Your task to perform on an android device: open the mobile data screen to see how much data has been used Image 0: 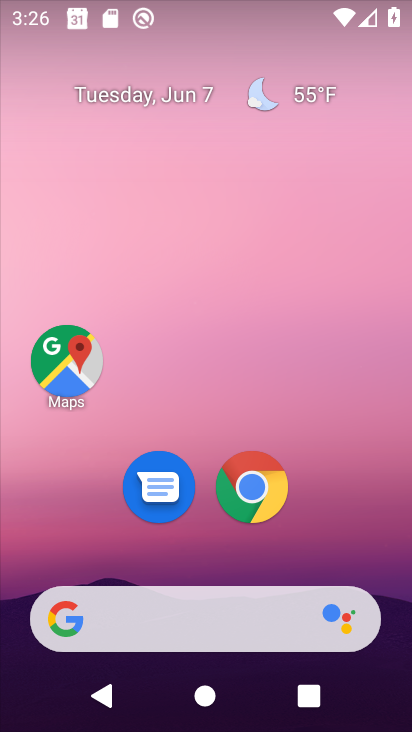
Step 0: drag from (289, 542) to (262, 91)
Your task to perform on an android device: open the mobile data screen to see how much data has been used Image 1: 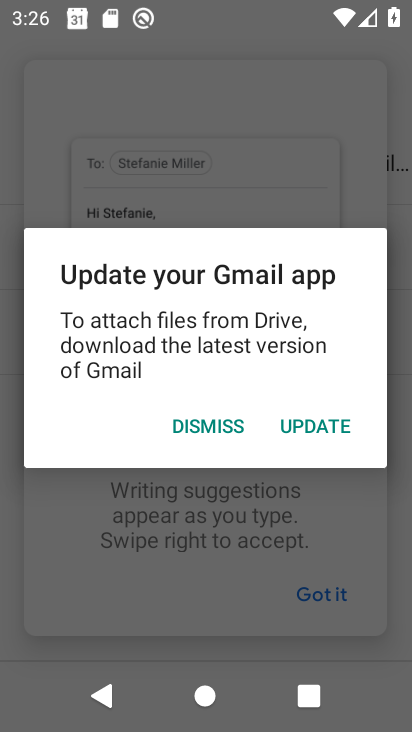
Step 1: press home button
Your task to perform on an android device: open the mobile data screen to see how much data has been used Image 2: 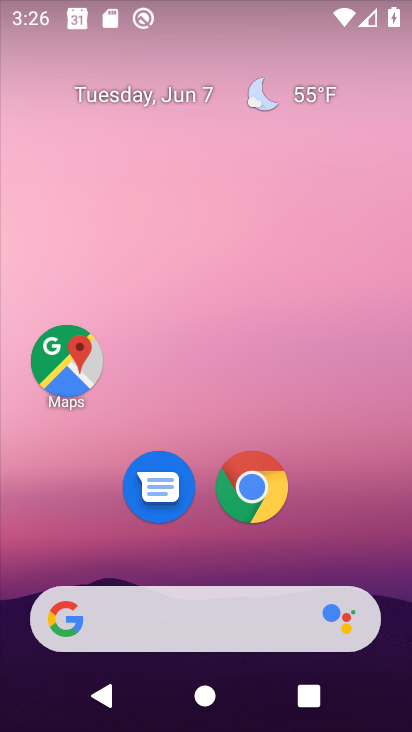
Step 2: drag from (328, 542) to (369, 68)
Your task to perform on an android device: open the mobile data screen to see how much data has been used Image 3: 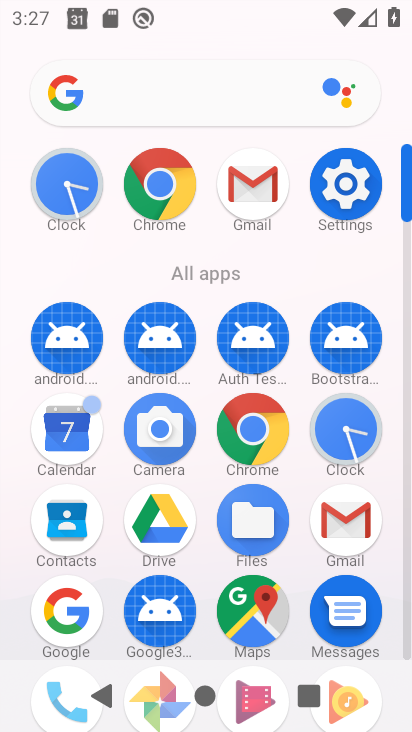
Step 3: click (345, 178)
Your task to perform on an android device: open the mobile data screen to see how much data has been used Image 4: 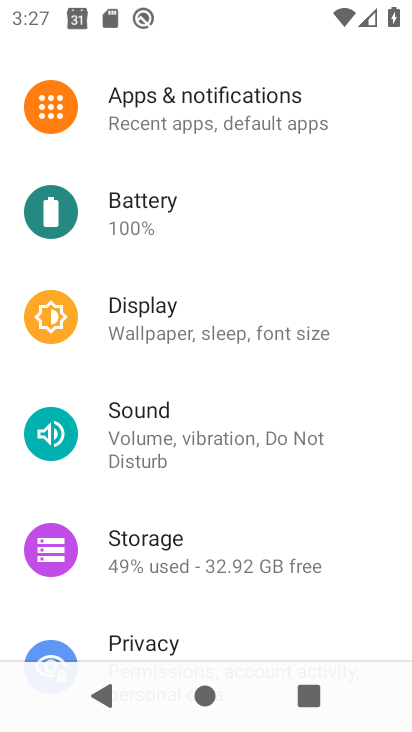
Step 4: drag from (153, 136) to (295, 655)
Your task to perform on an android device: open the mobile data screen to see how much data has been used Image 5: 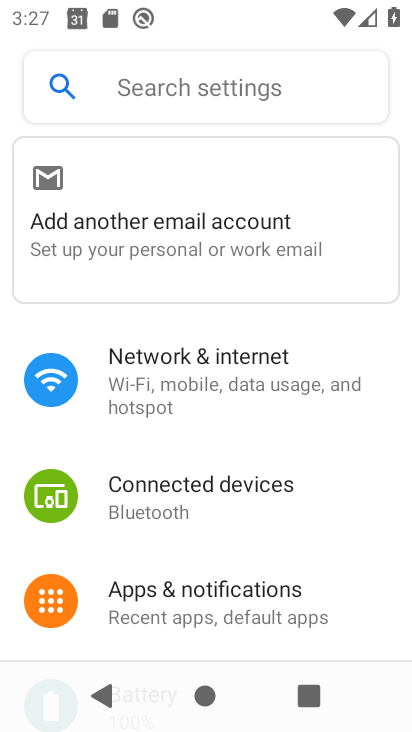
Step 5: click (253, 382)
Your task to perform on an android device: open the mobile data screen to see how much data has been used Image 6: 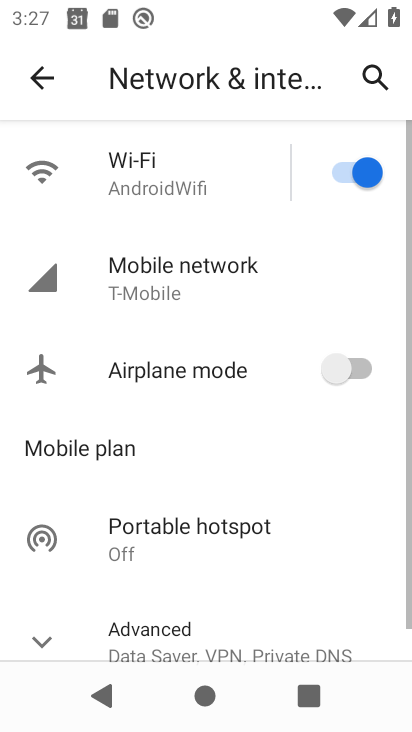
Step 6: click (193, 279)
Your task to perform on an android device: open the mobile data screen to see how much data has been used Image 7: 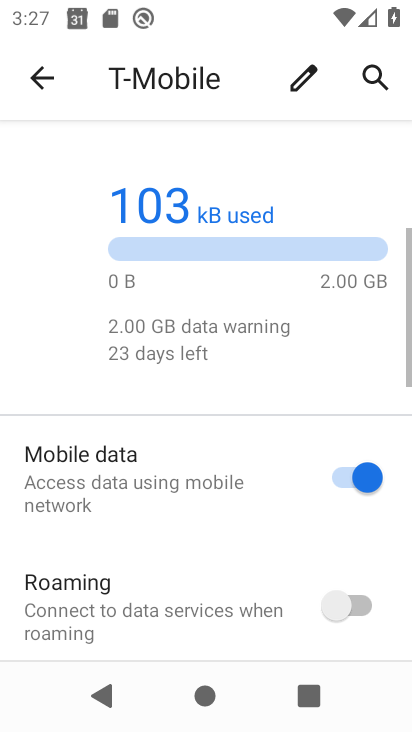
Step 7: task complete